Your task to perform on an android device: change keyboard looks Image 0: 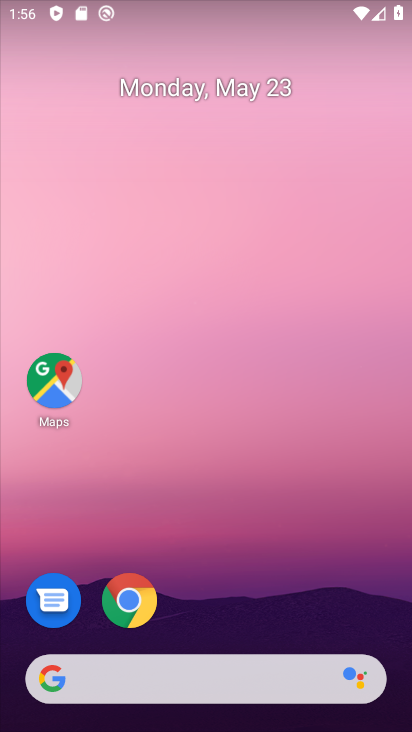
Step 0: drag from (207, 605) to (209, 252)
Your task to perform on an android device: change keyboard looks Image 1: 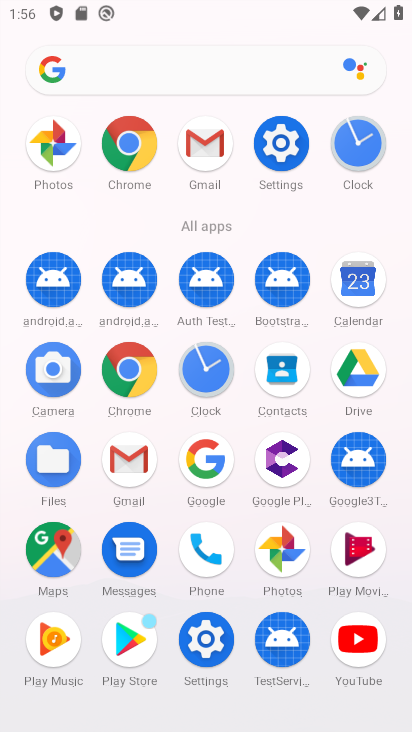
Step 1: click (288, 139)
Your task to perform on an android device: change keyboard looks Image 2: 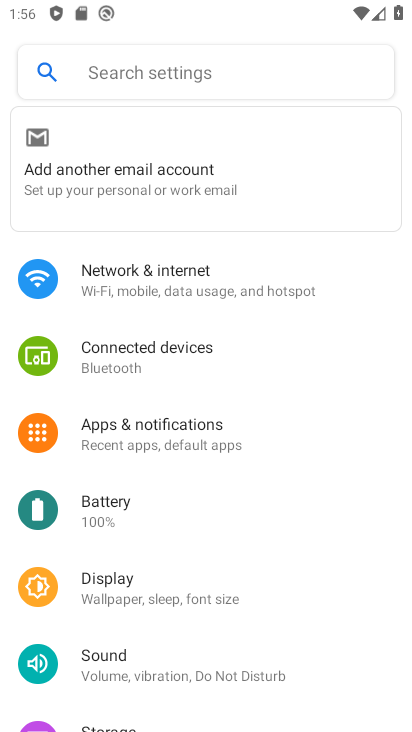
Step 2: drag from (209, 664) to (305, 204)
Your task to perform on an android device: change keyboard looks Image 3: 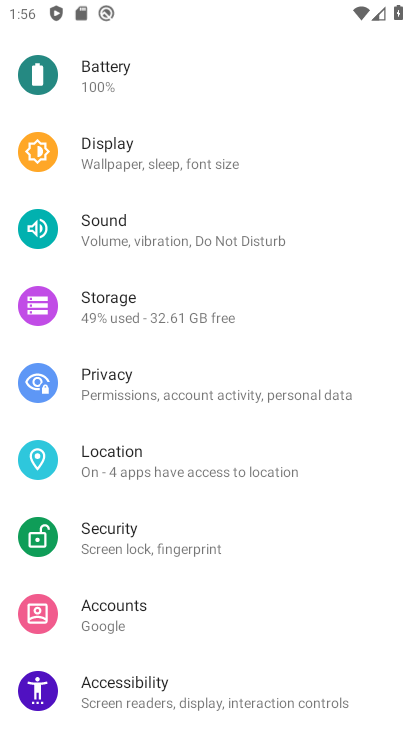
Step 3: drag from (149, 656) to (224, 428)
Your task to perform on an android device: change keyboard looks Image 4: 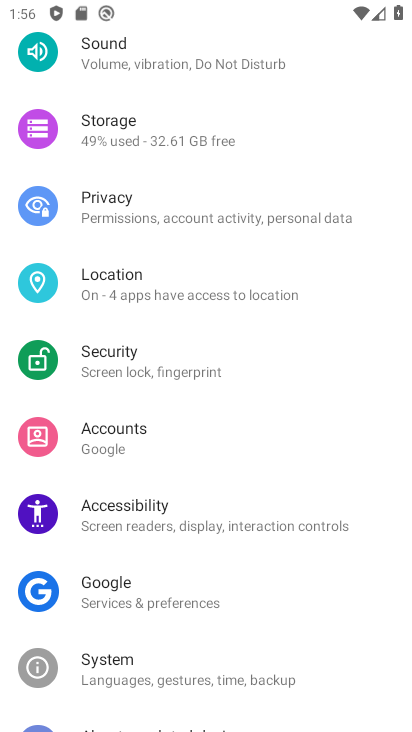
Step 4: click (136, 675)
Your task to perform on an android device: change keyboard looks Image 5: 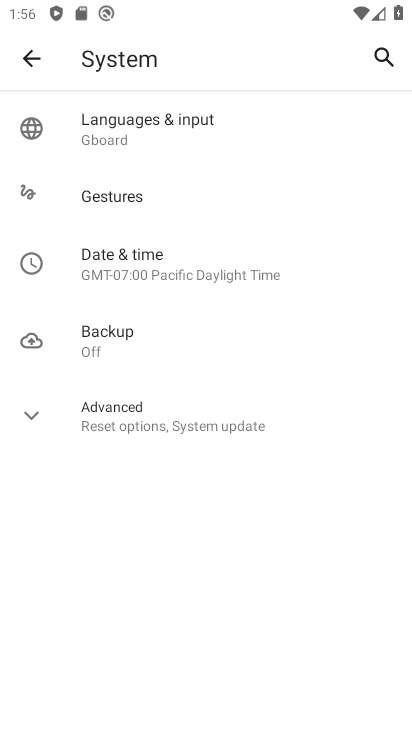
Step 5: click (134, 139)
Your task to perform on an android device: change keyboard looks Image 6: 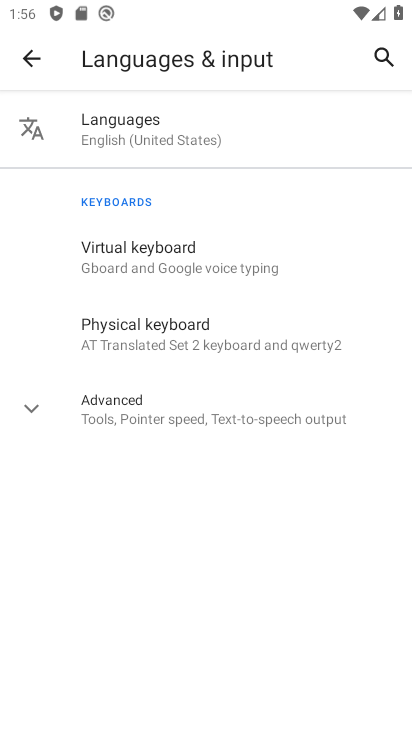
Step 6: click (158, 261)
Your task to perform on an android device: change keyboard looks Image 7: 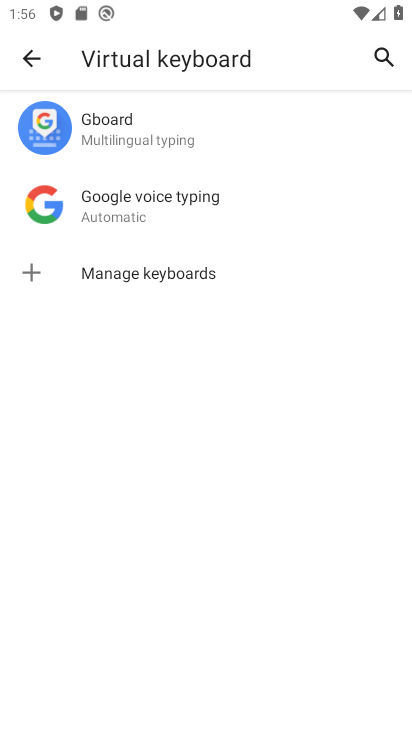
Step 7: click (166, 134)
Your task to perform on an android device: change keyboard looks Image 8: 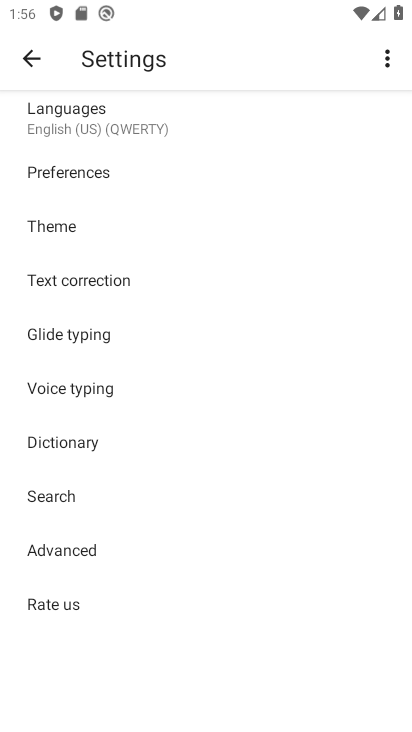
Step 8: click (87, 220)
Your task to perform on an android device: change keyboard looks Image 9: 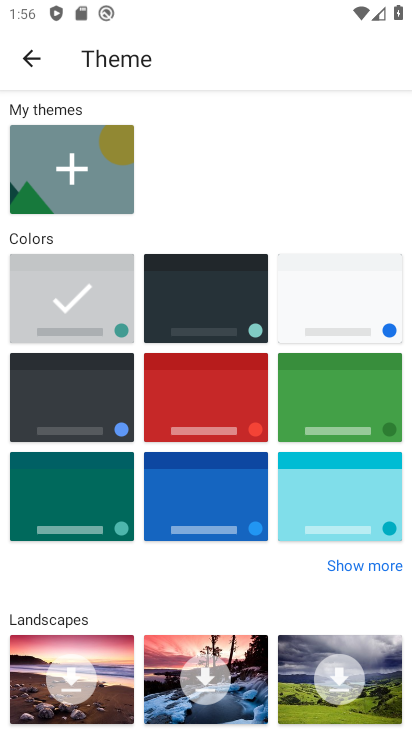
Step 9: click (74, 414)
Your task to perform on an android device: change keyboard looks Image 10: 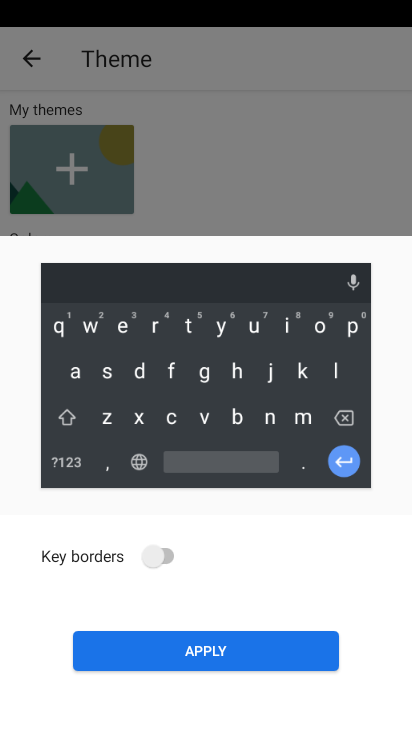
Step 10: click (179, 642)
Your task to perform on an android device: change keyboard looks Image 11: 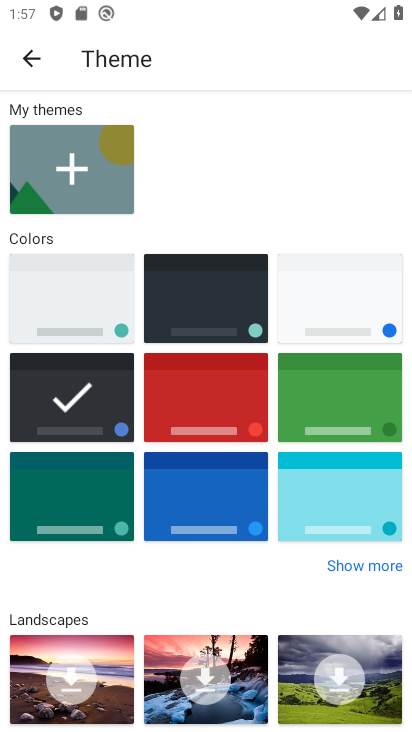
Step 11: task complete